Your task to perform on an android device: Show me popular videos on Youtube Image 0: 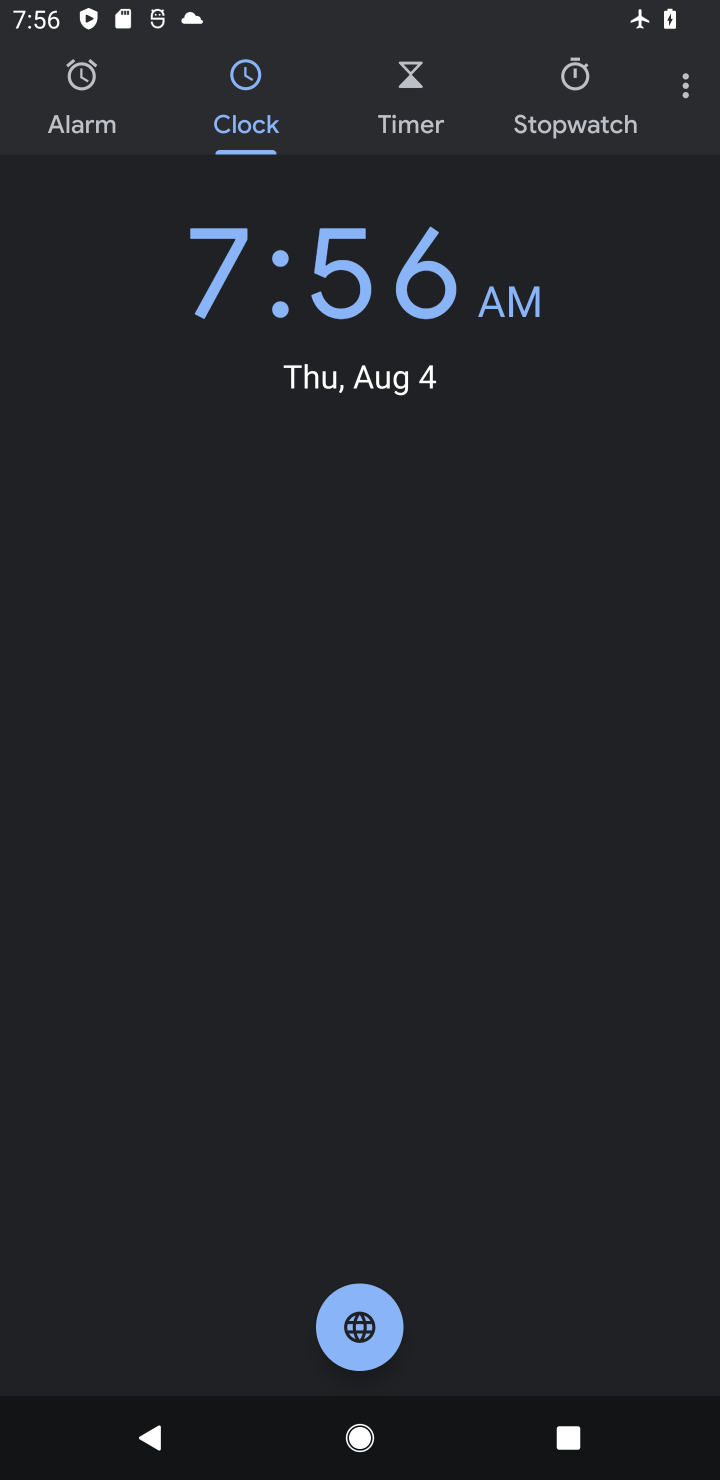
Step 0: press home button
Your task to perform on an android device: Show me popular videos on Youtube Image 1: 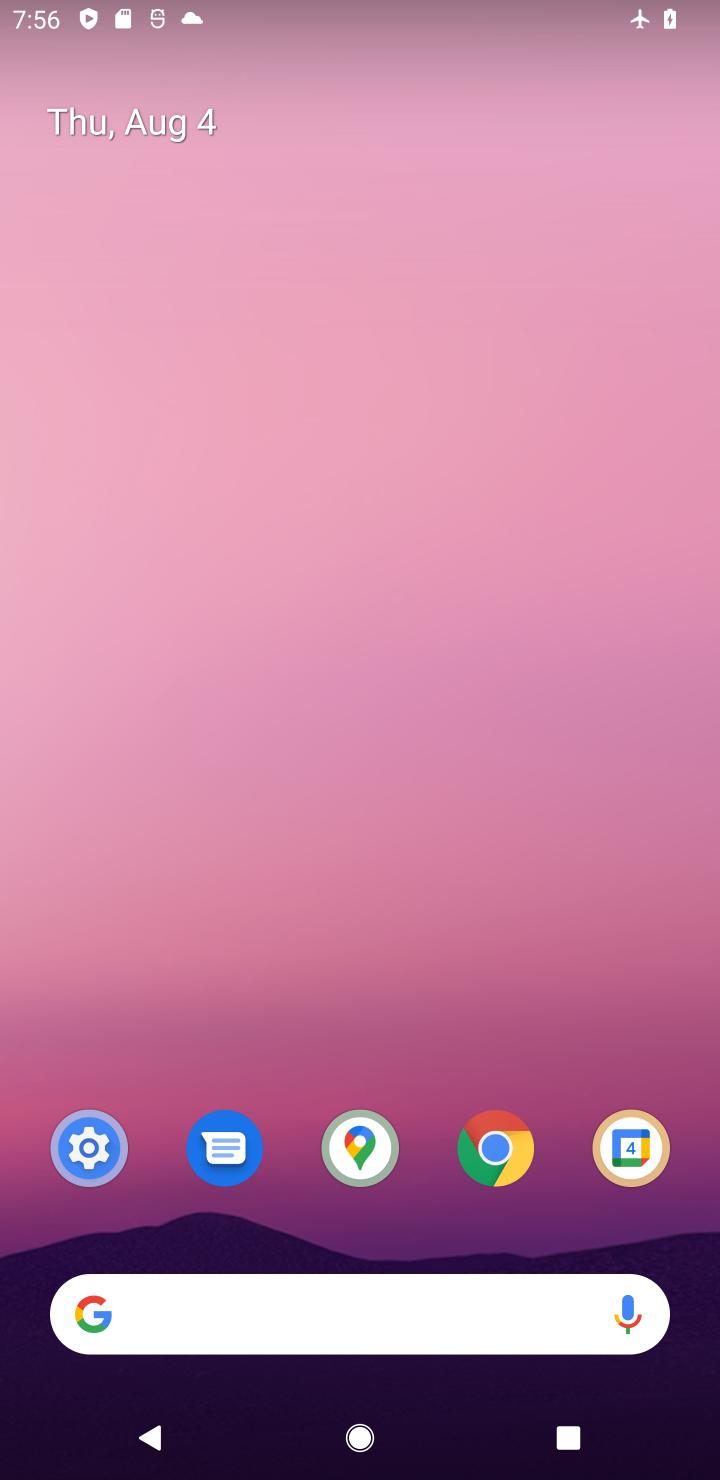
Step 1: drag from (572, 1212) to (597, 301)
Your task to perform on an android device: Show me popular videos on Youtube Image 2: 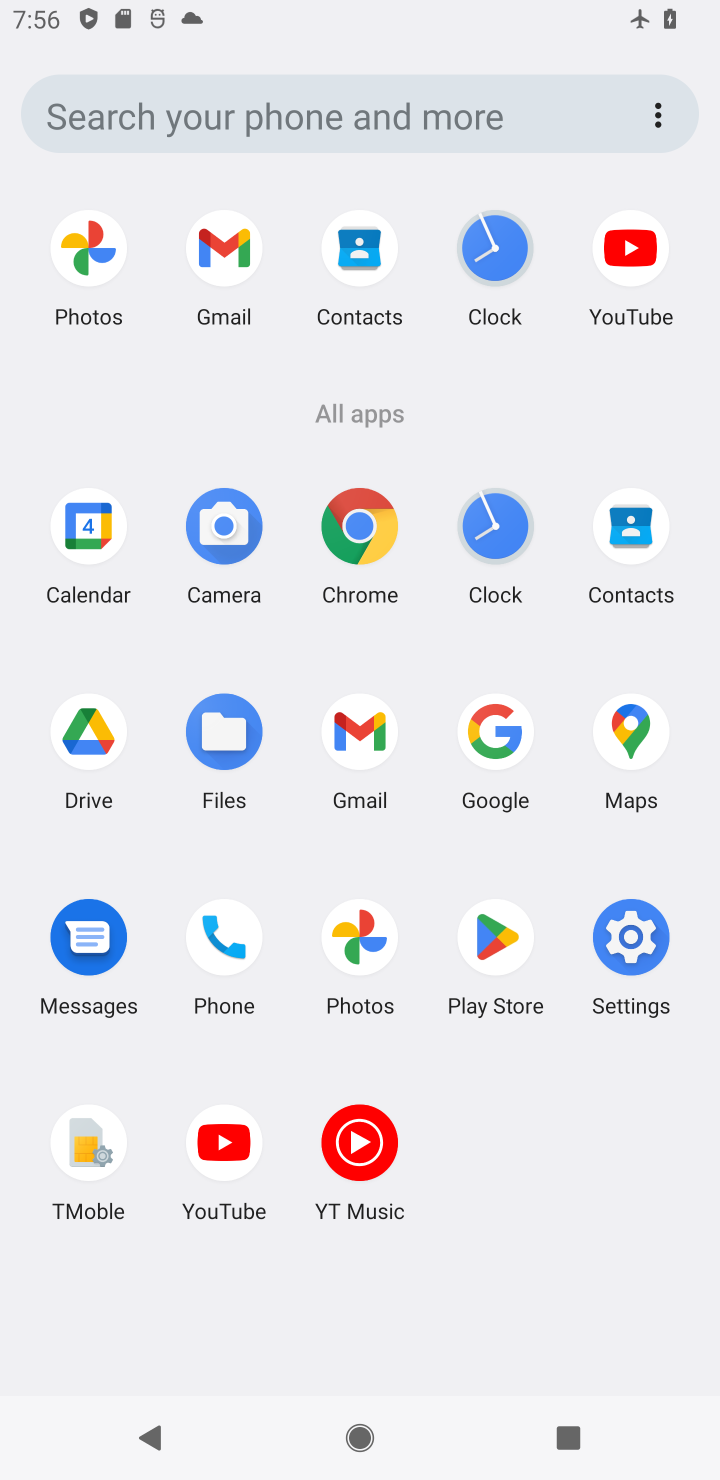
Step 2: click (198, 1132)
Your task to perform on an android device: Show me popular videos on Youtube Image 3: 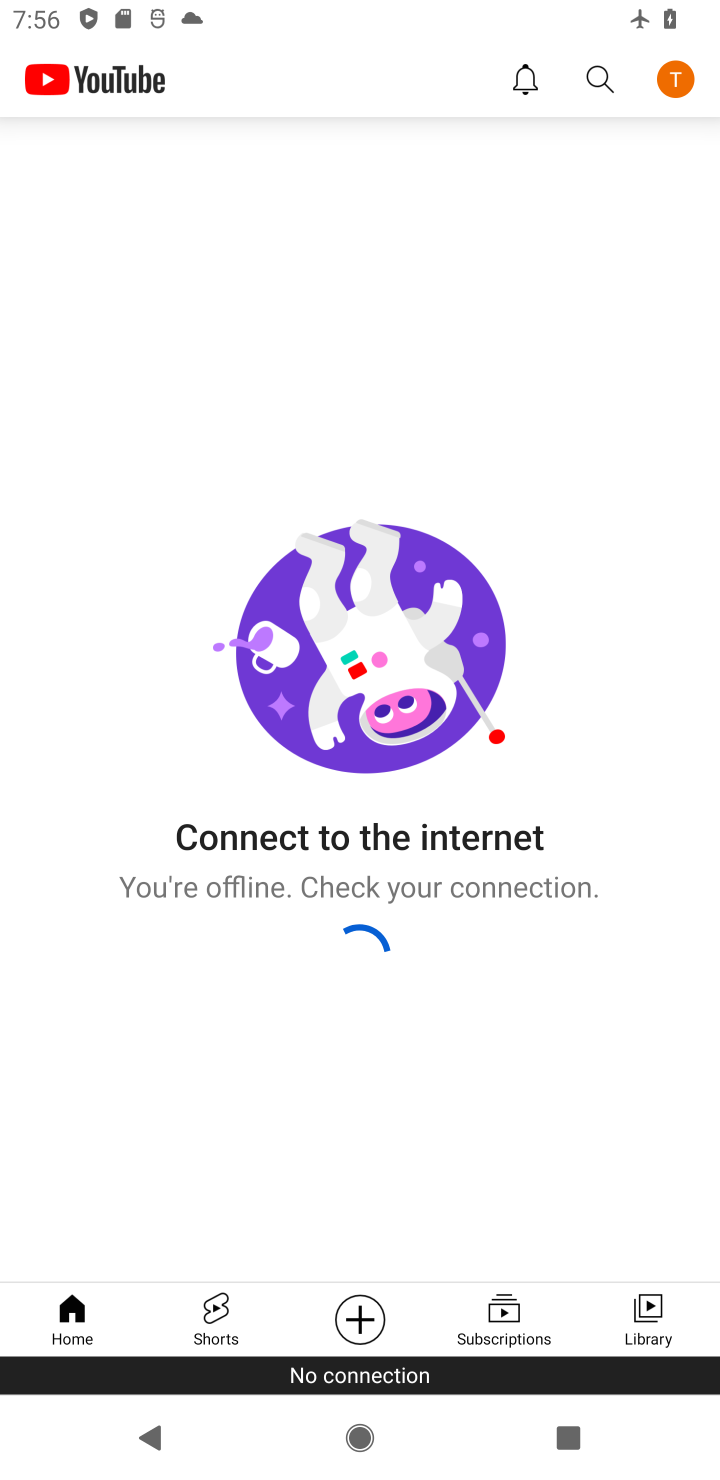
Step 3: task complete